Your task to perform on an android device: turn off notifications settings in the gmail app Image 0: 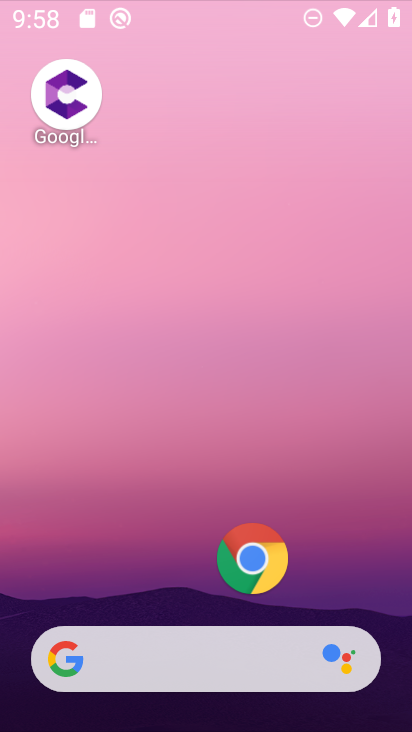
Step 0: drag from (160, 600) to (215, 199)
Your task to perform on an android device: turn off notifications settings in the gmail app Image 1: 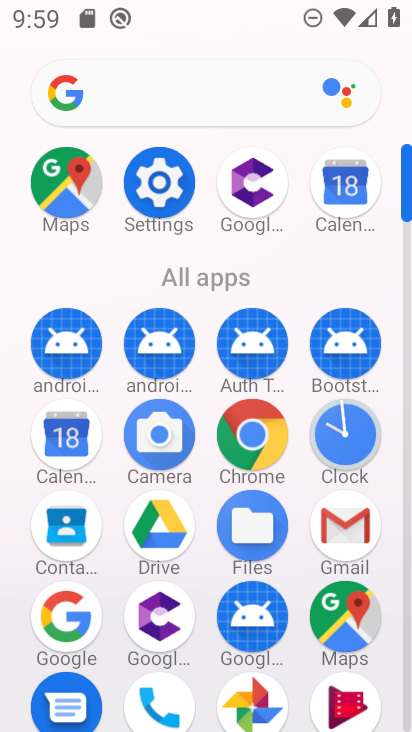
Step 1: click (335, 542)
Your task to perform on an android device: turn off notifications settings in the gmail app Image 2: 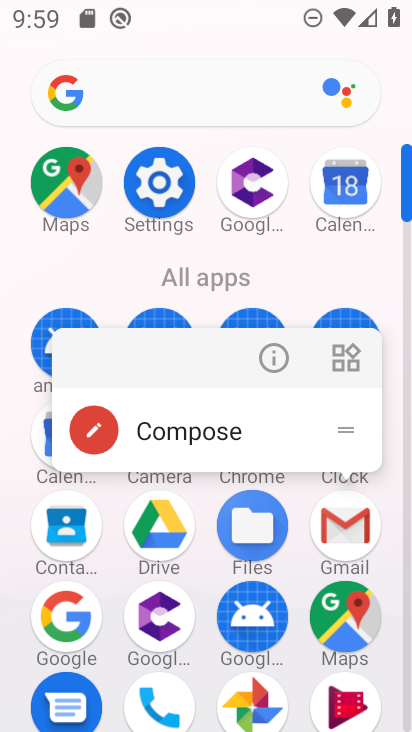
Step 2: click (355, 530)
Your task to perform on an android device: turn off notifications settings in the gmail app Image 3: 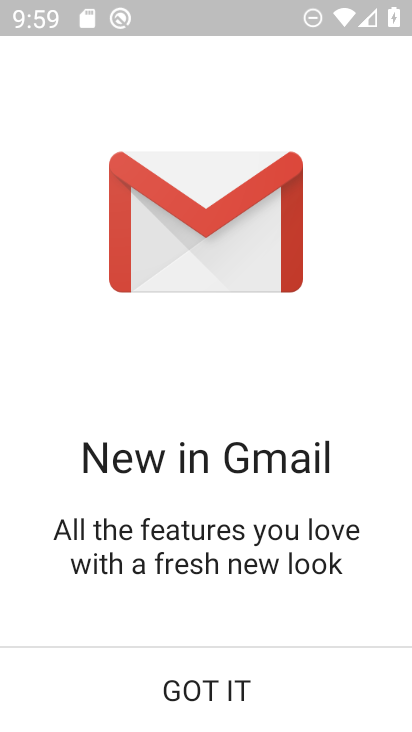
Step 3: click (193, 683)
Your task to perform on an android device: turn off notifications settings in the gmail app Image 4: 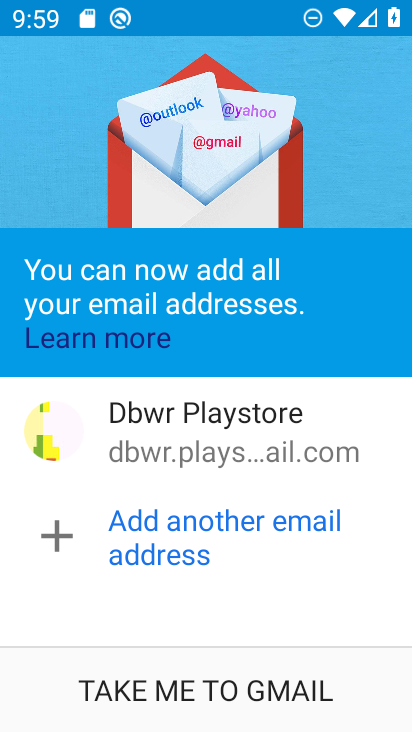
Step 4: click (252, 713)
Your task to perform on an android device: turn off notifications settings in the gmail app Image 5: 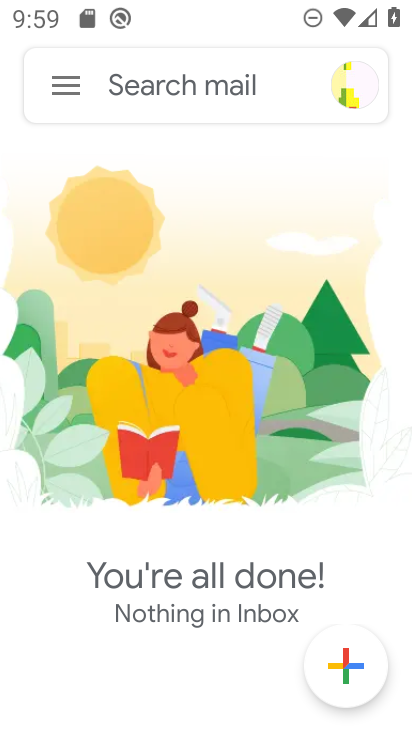
Step 5: click (75, 79)
Your task to perform on an android device: turn off notifications settings in the gmail app Image 6: 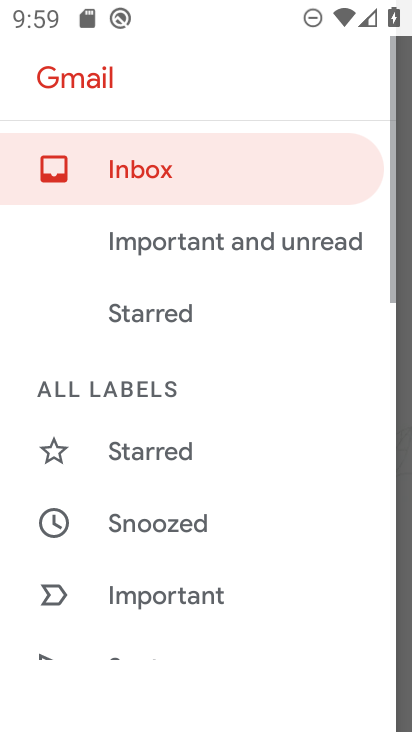
Step 6: drag from (152, 572) to (365, 140)
Your task to perform on an android device: turn off notifications settings in the gmail app Image 7: 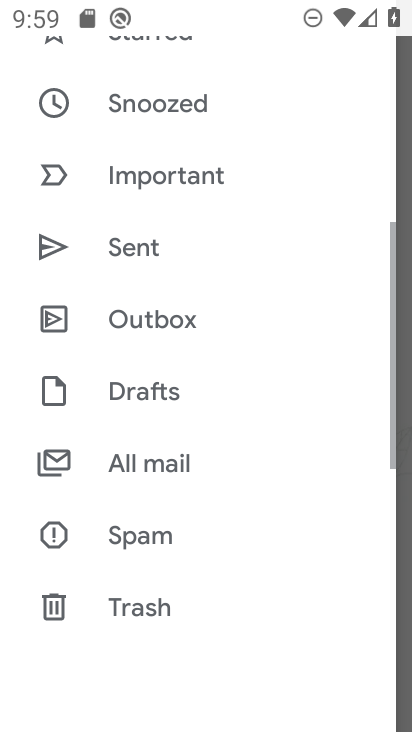
Step 7: drag from (216, 582) to (317, 281)
Your task to perform on an android device: turn off notifications settings in the gmail app Image 8: 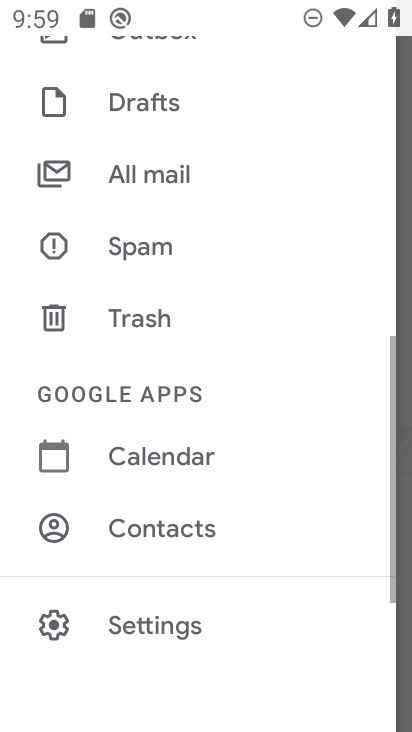
Step 8: drag from (213, 610) to (293, 311)
Your task to perform on an android device: turn off notifications settings in the gmail app Image 9: 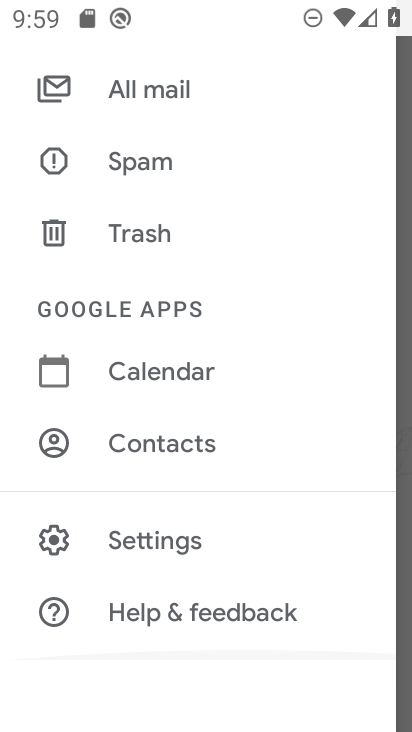
Step 9: click (188, 546)
Your task to perform on an android device: turn off notifications settings in the gmail app Image 10: 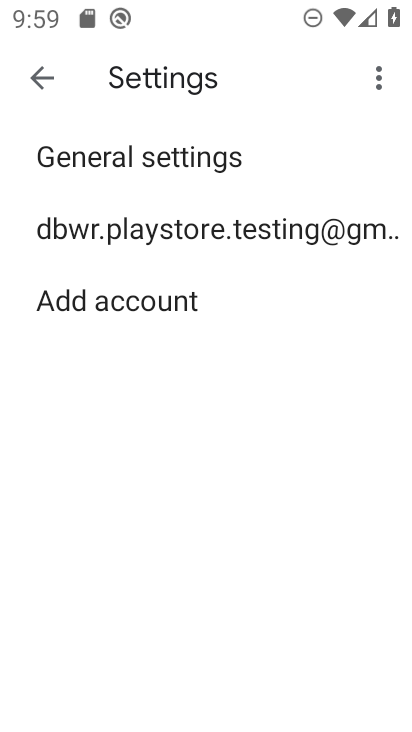
Step 10: click (260, 188)
Your task to perform on an android device: turn off notifications settings in the gmail app Image 11: 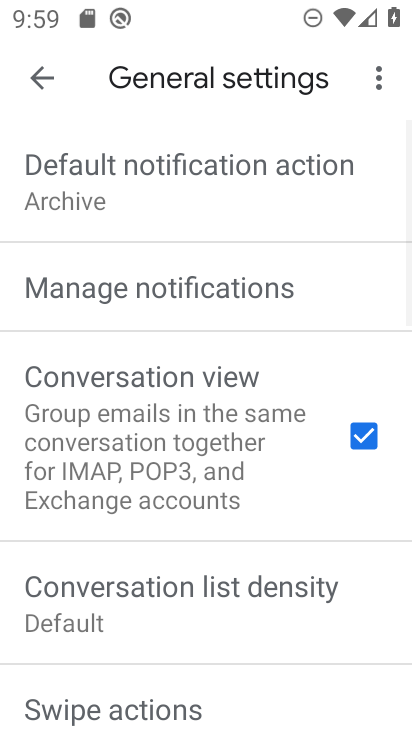
Step 11: click (263, 280)
Your task to perform on an android device: turn off notifications settings in the gmail app Image 12: 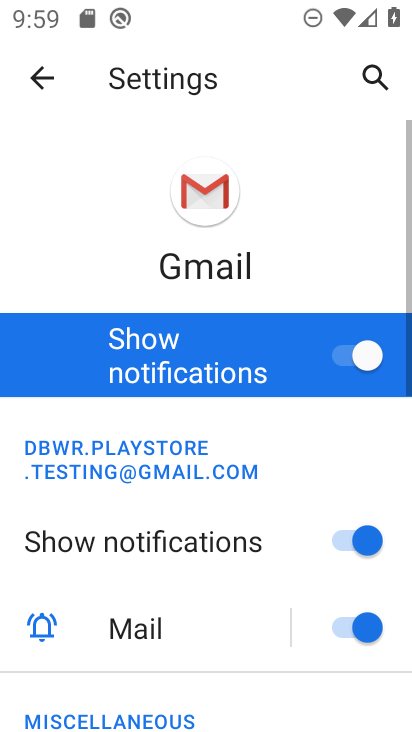
Step 12: click (335, 356)
Your task to perform on an android device: turn off notifications settings in the gmail app Image 13: 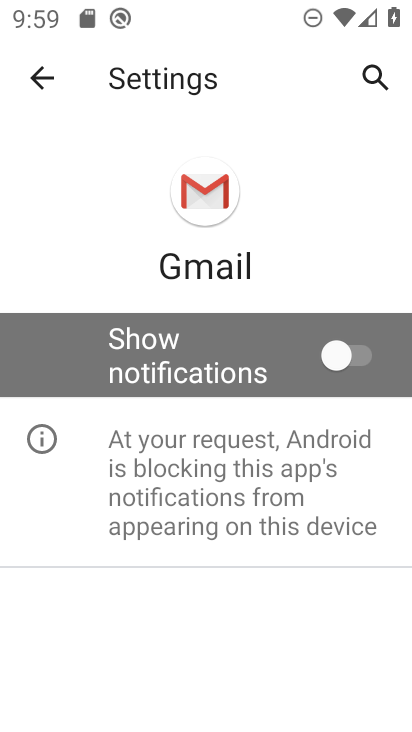
Step 13: task complete